Your task to perform on an android device: Show me the alarms in the clock app Image 0: 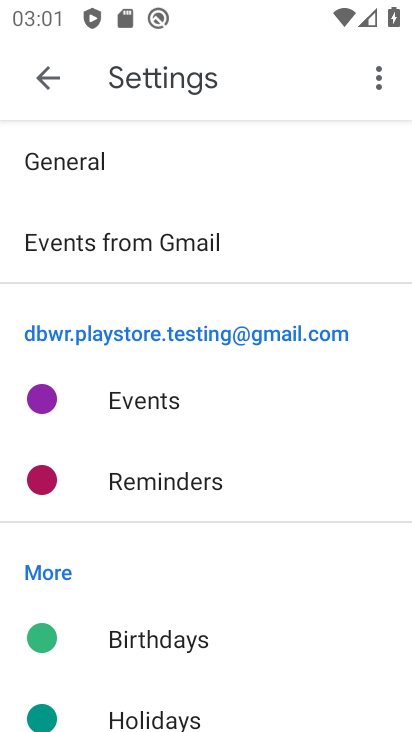
Step 0: press home button
Your task to perform on an android device: Show me the alarms in the clock app Image 1: 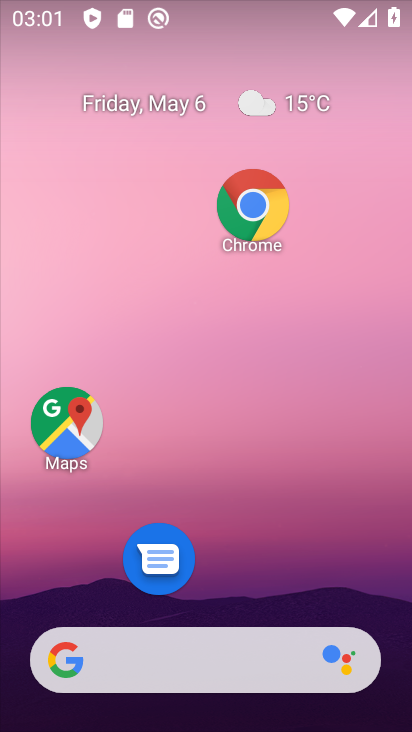
Step 1: drag from (262, 554) to (262, 120)
Your task to perform on an android device: Show me the alarms in the clock app Image 2: 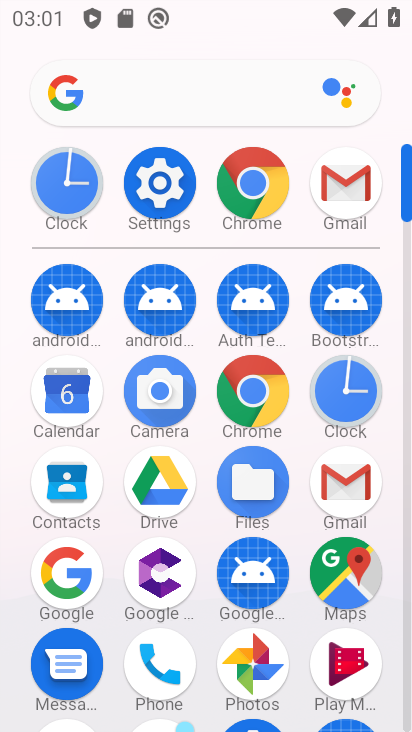
Step 2: click (150, 180)
Your task to perform on an android device: Show me the alarms in the clock app Image 3: 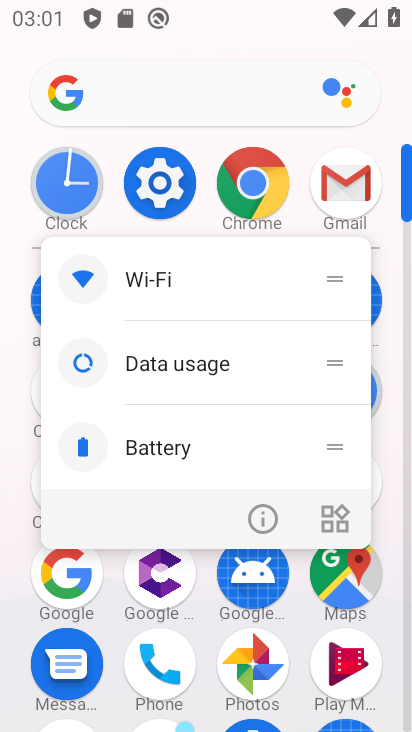
Step 3: click (150, 180)
Your task to perform on an android device: Show me the alarms in the clock app Image 4: 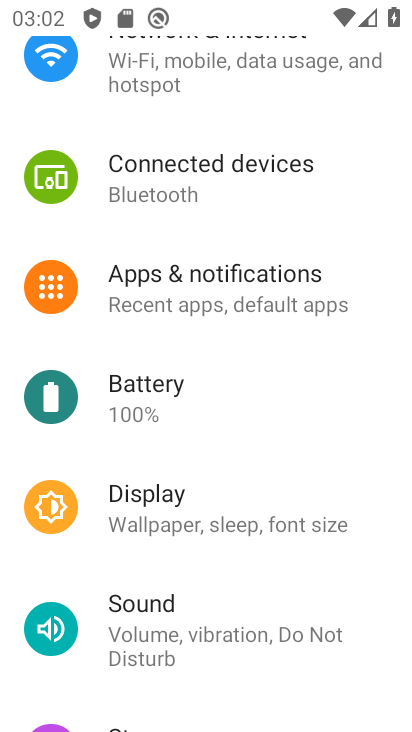
Step 4: drag from (251, 345) to (255, 669)
Your task to perform on an android device: Show me the alarms in the clock app Image 5: 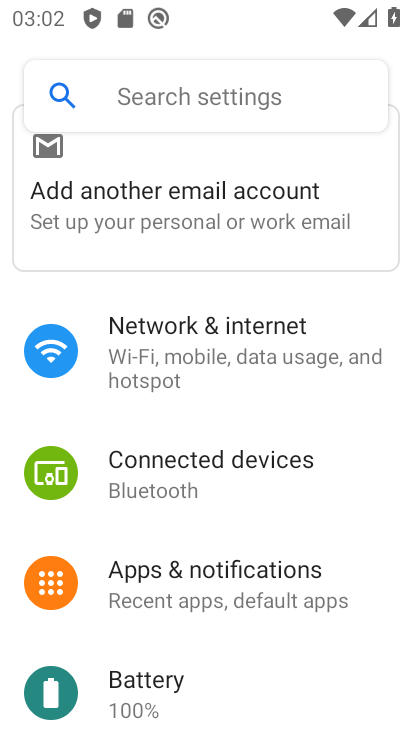
Step 5: press home button
Your task to perform on an android device: Show me the alarms in the clock app Image 6: 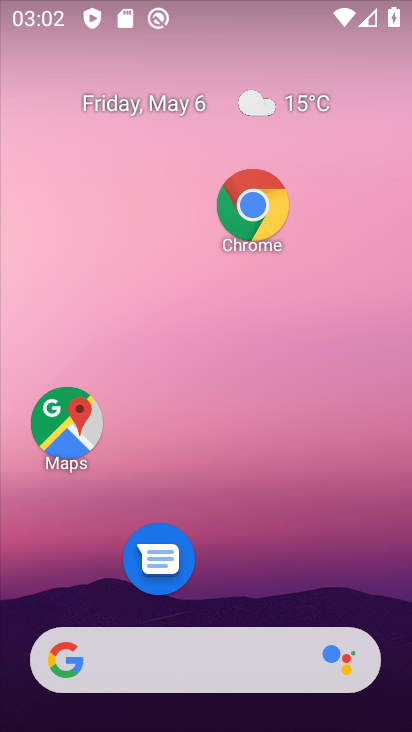
Step 6: drag from (343, 583) to (248, 168)
Your task to perform on an android device: Show me the alarms in the clock app Image 7: 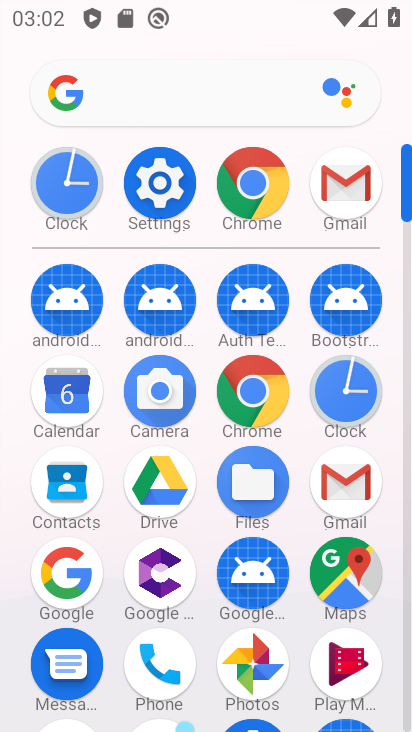
Step 7: click (351, 406)
Your task to perform on an android device: Show me the alarms in the clock app Image 8: 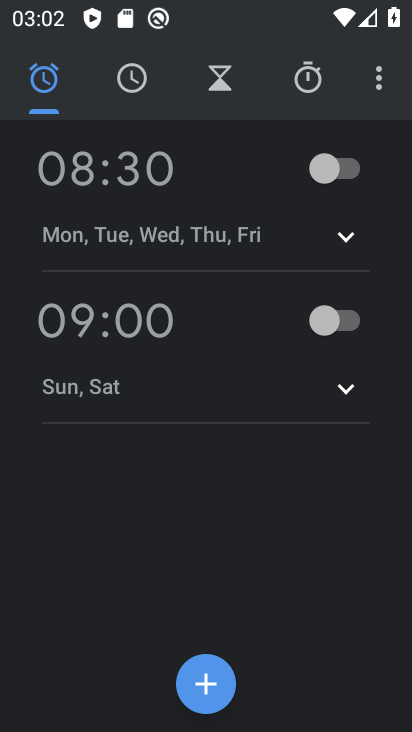
Step 8: task complete